Your task to perform on an android device: Search for pizza restaurants on Maps Image 0: 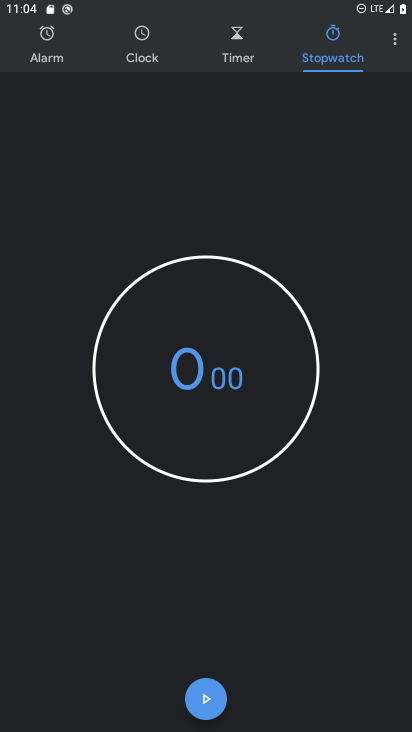
Step 0: press home button
Your task to perform on an android device: Search for pizza restaurants on Maps Image 1: 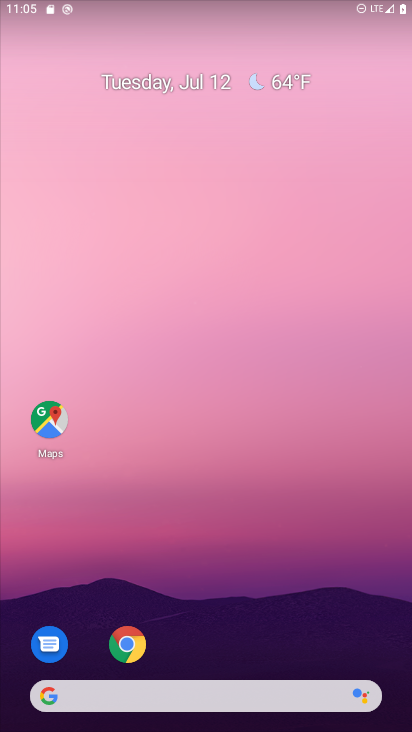
Step 1: click (60, 432)
Your task to perform on an android device: Search for pizza restaurants on Maps Image 2: 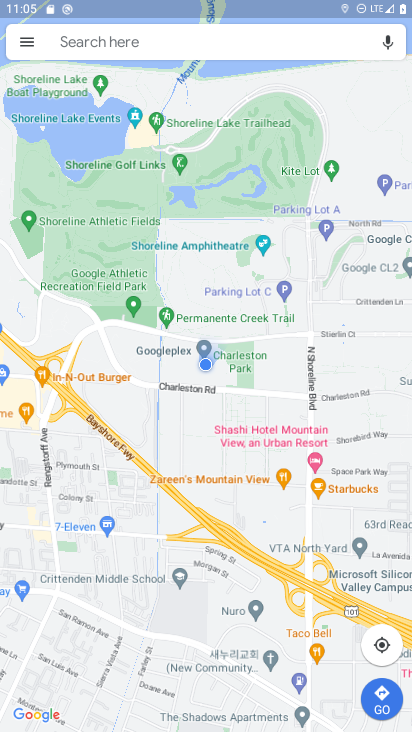
Step 2: click (176, 40)
Your task to perform on an android device: Search for pizza restaurants on Maps Image 3: 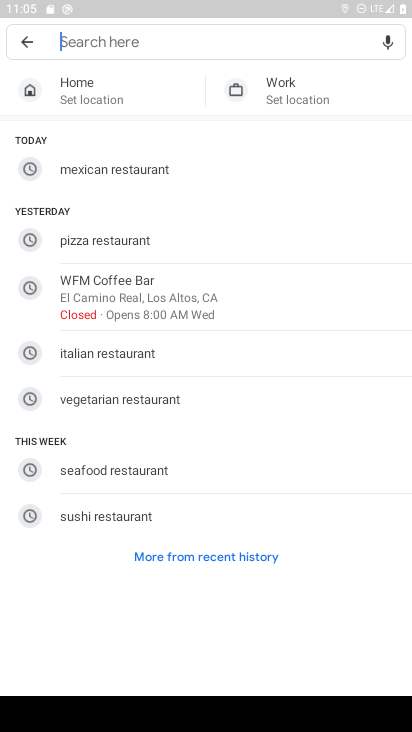
Step 3: click (106, 246)
Your task to perform on an android device: Search for pizza restaurants on Maps Image 4: 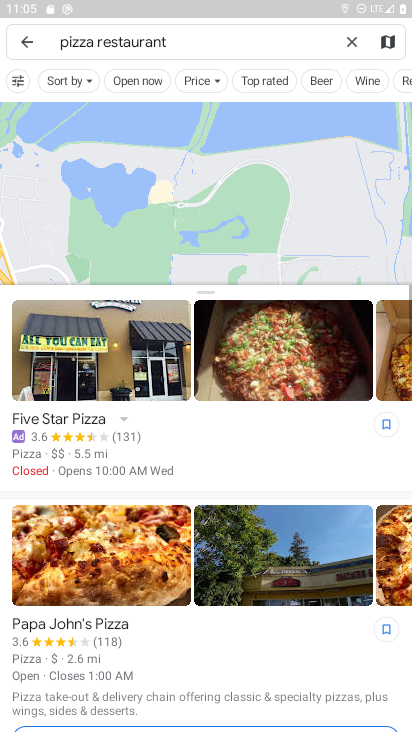
Step 4: task complete